Your task to perform on an android device: Check the weather Image 0: 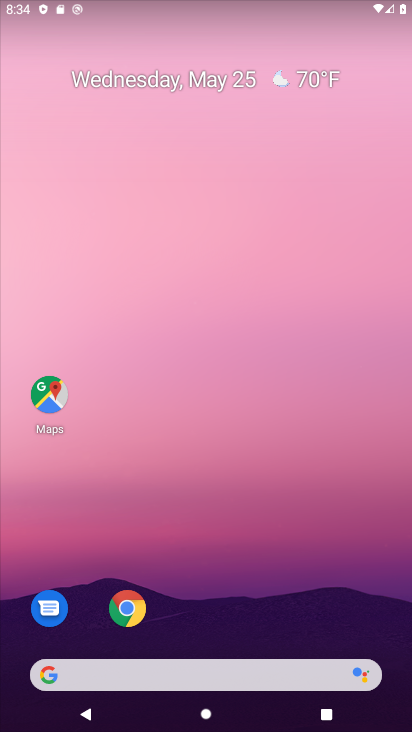
Step 0: click (310, 71)
Your task to perform on an android device: Check the weather Image 1: 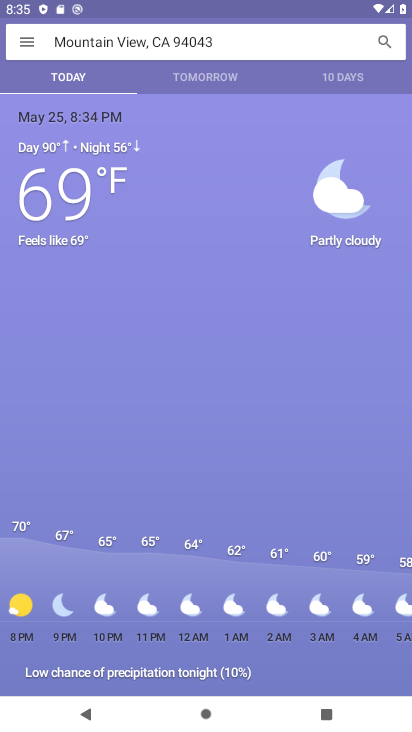
Step 1: task complete